Your task to perform on an android device: What's the weather today? Image 0: 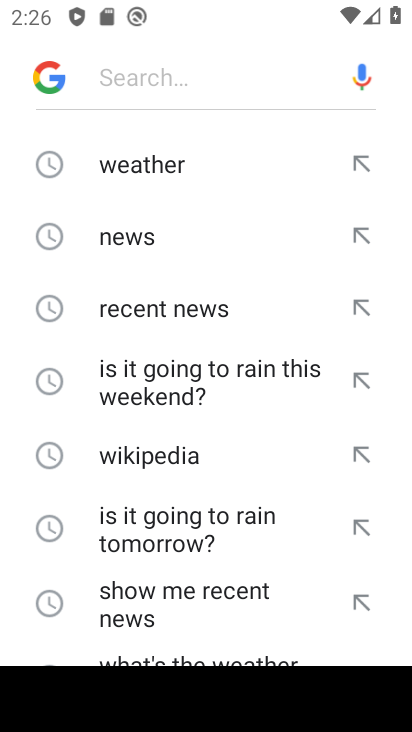
Step 0: press back button
Your task to perform on an android device: What's the weather today? Image 1: 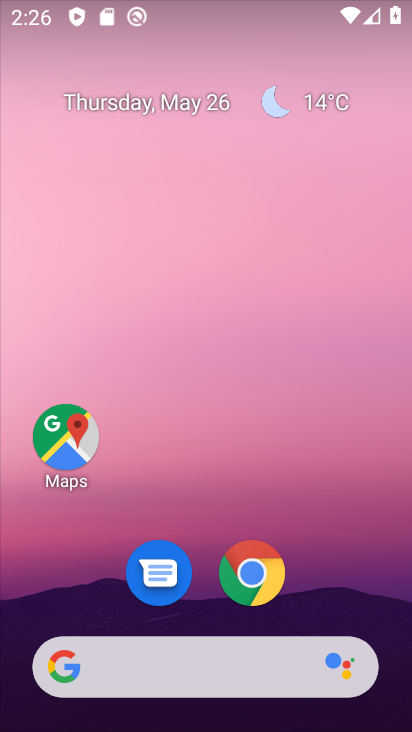
Step 1: drag from (341, 575) to (277, 74)
Your task to perform on an android device: What's the weather today? Image 2: 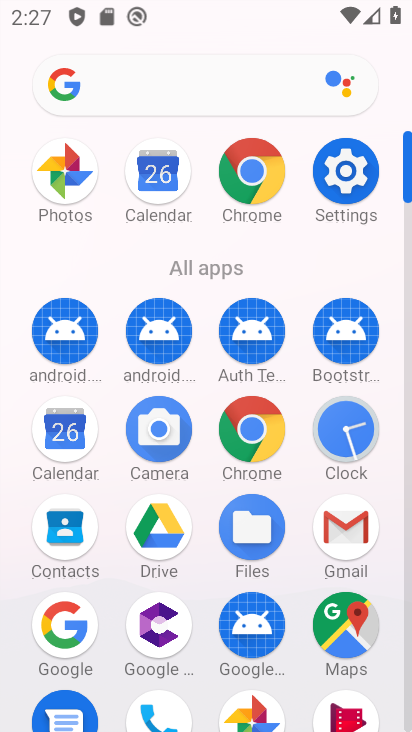
Step 2: click (248, 161)
Your task to perform on an android device: What's the weather today? Image 3: 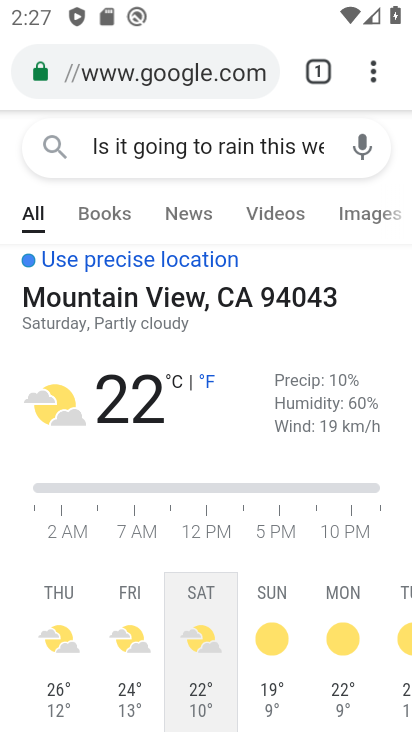
Step 3: click (179, 71)
Your task to perform on an android device: What's the weather today? Image 4: 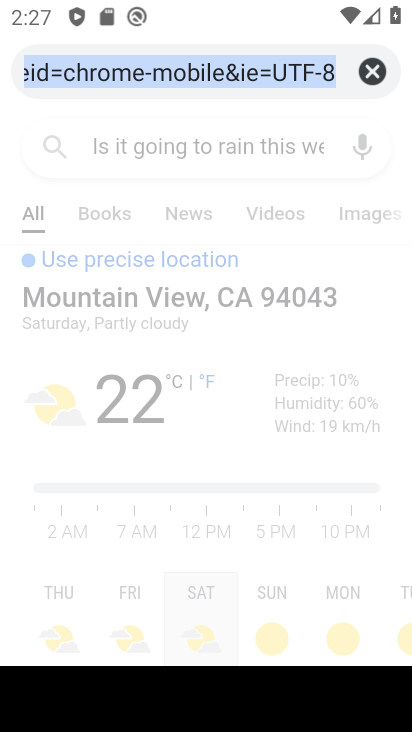
Step 4: click (374, 64)
Your task to perform on an android device: What's the weather today? Image 5: 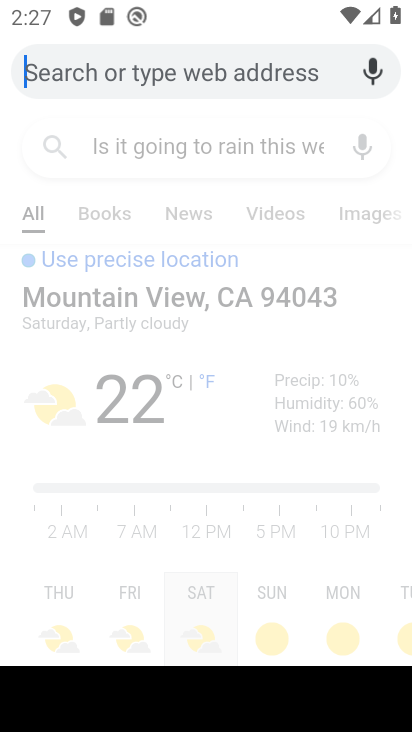
Step 5: type "What's the weather today?"
Your task to perform on an android device: What's the weather today? Image 6: 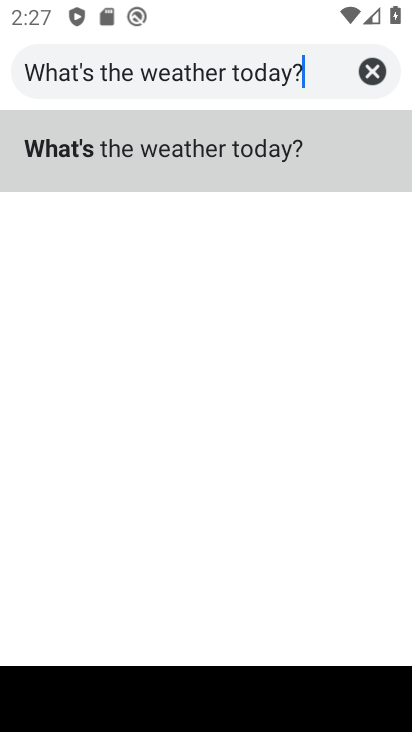
Step 6: type ""
Your task to perform on an android device: What's the weather today? Image 7: 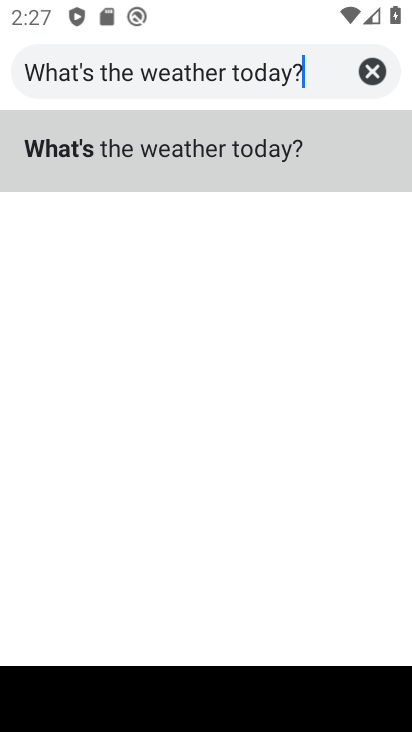
Step 7: click (226, 135)
Your task to perform on an android device: What's the weather today? Image 8: 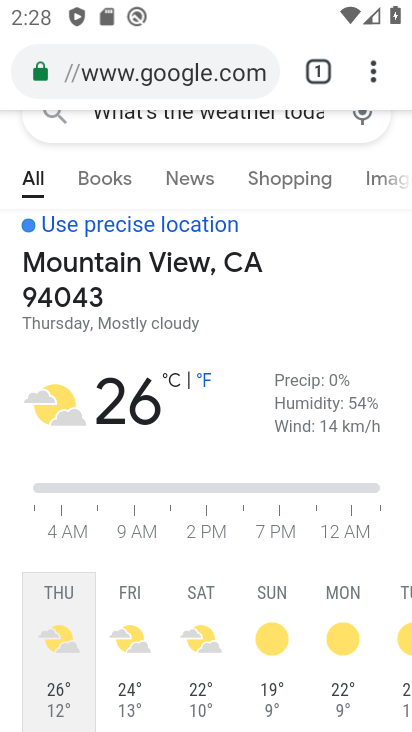
Step 8: task complete